Your task to perform on an android device: open the mobile data screen to see how much data has been used Image 0: 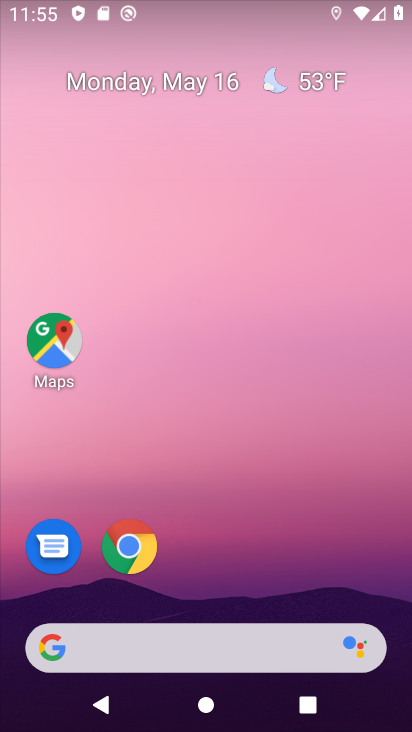
Step 0: drag from (230, 561) to (263, 139)
Your task to perform on an android device: open the mobile data screen to see how much data has been used Image 1: 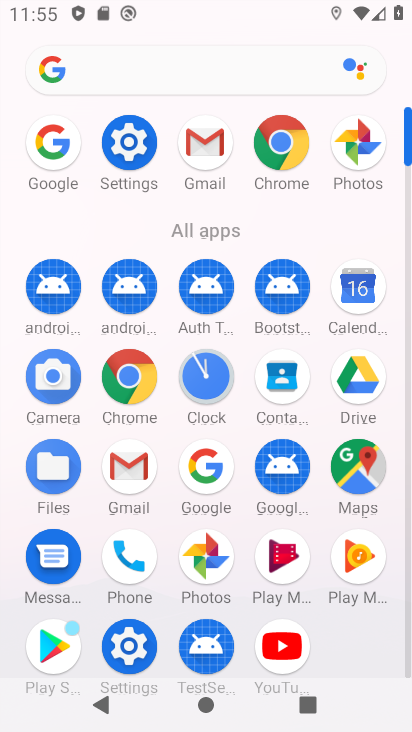
Step 1: click (133, 149)
Your task to perform on an android device: open the mobile data screen to see how much data has been used Image 2: 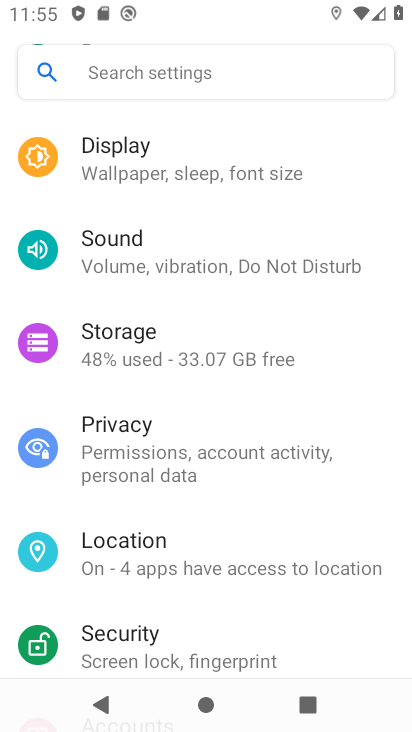
Step 2: drag from (191, 182) to (235, 559)
Your task to perform on an android device: open the mobile data screen to see how much data has been used Image 3: 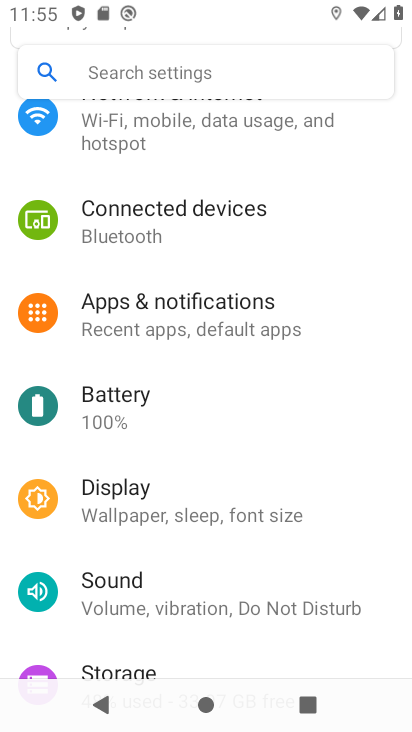
Step 3: click (177, 129)
Your task to perform on an android device: open the mobile data screen to see how much data has been used Image 4: 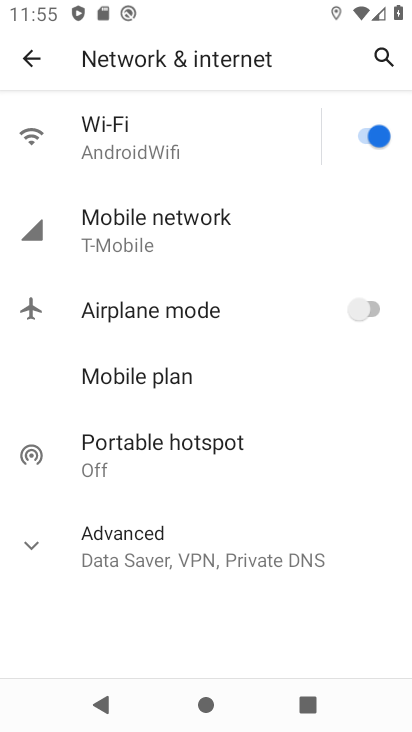
Step 4: click (179, 222)
Your task to perform on an android device: open the mobile data screen to see how much data has been used Image 5: 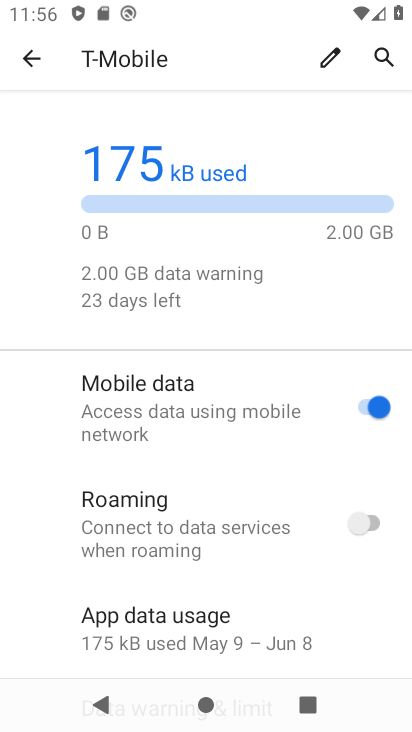
Step 5: task complete